Your task to perform on an android device: check data usage Image 0: 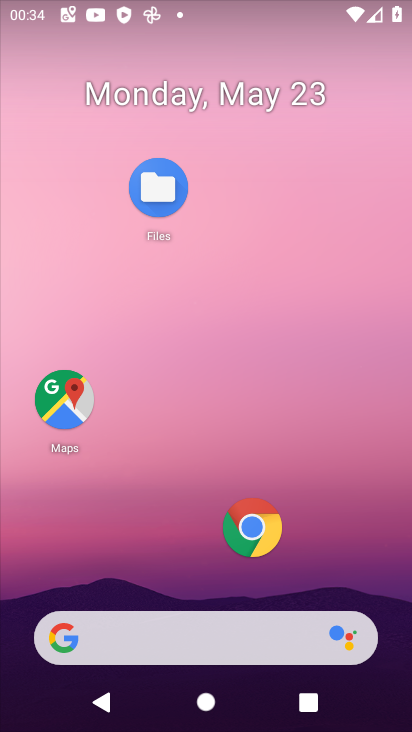
Step 0: drag from (168, 527) to (189, 40)
Your task to perform on an android device: check data usage Image 1: 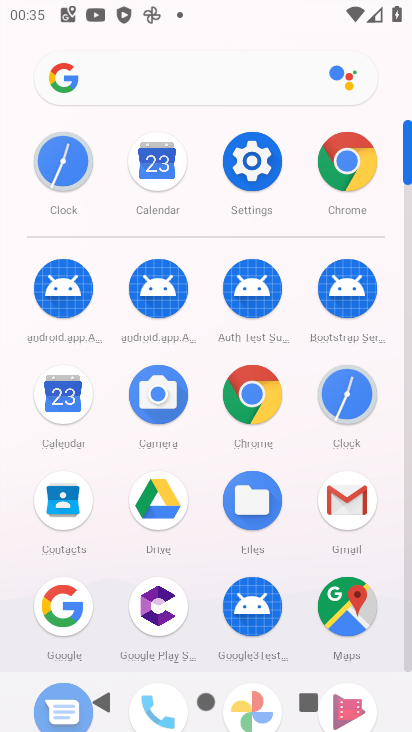
Step 1: click (250, 151)
Your task to perform on an android device: check data usage Image 2: 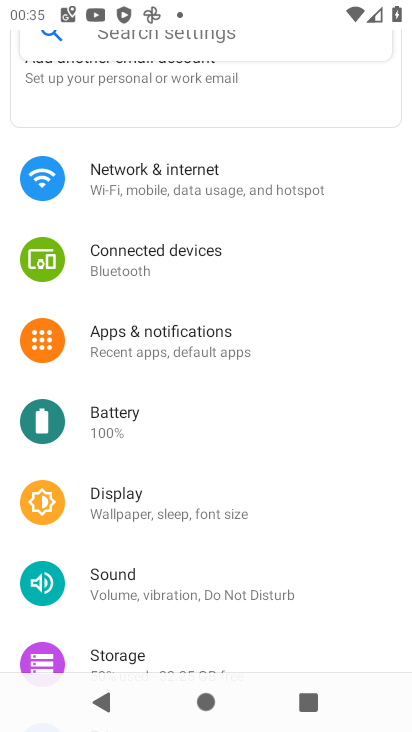
Step 2: click (148, 178)
Your task to perform on an android device: check data usage Image 3: 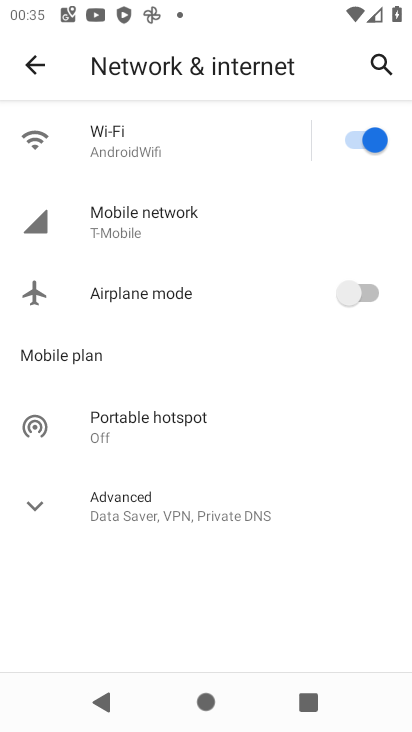
Step 3: click (141, 212)
Your task to perform on an android device: check data usage Image 4: 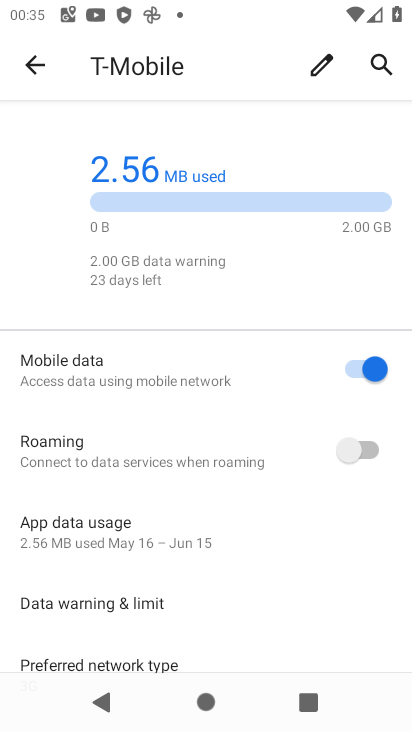
Step 4: task complete